Your task to perform on an android device: Is it going to rain this weekend? Image 0: 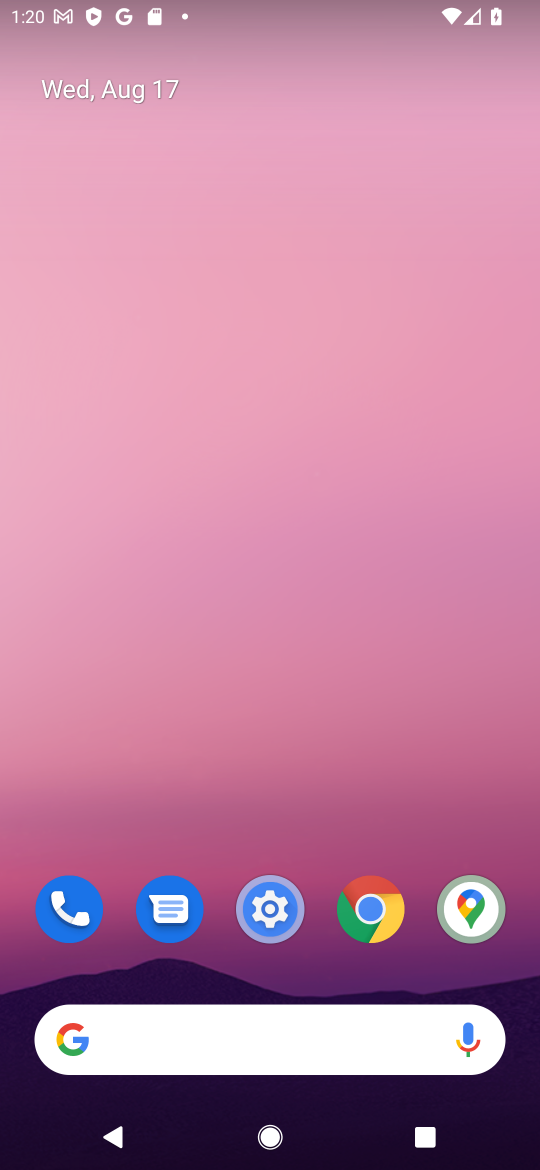
Step 0: drag from (317, 585) to (323, 176)
Your task to perform on an android device: Is it going to rain this weekend? Image 1: 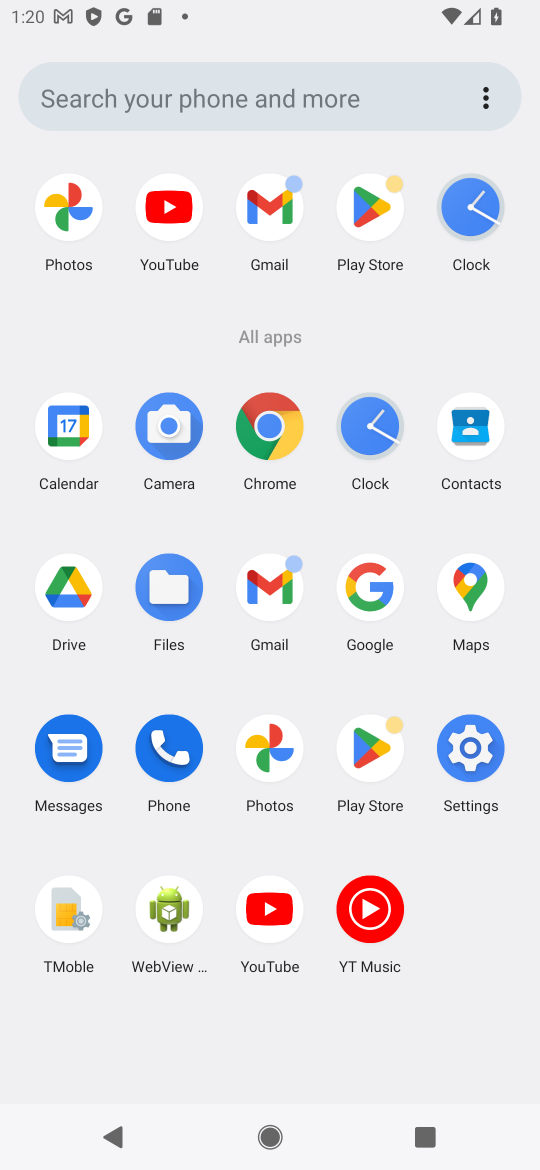
Step 1: task complete